Your task to perform on an android device: turn on the 12-hour format for clock Image 0: 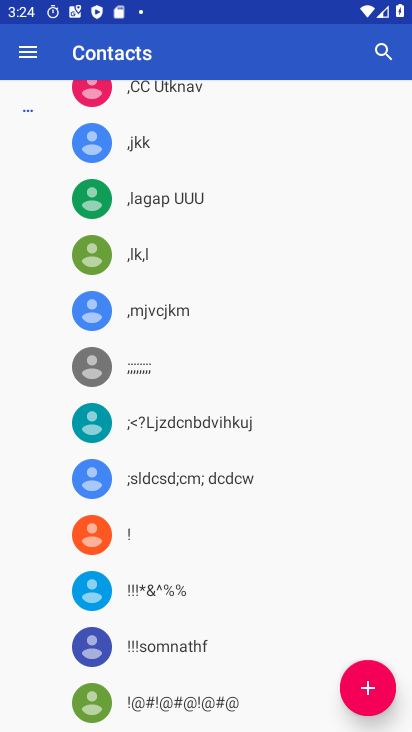
Step 0: press home button
Your task to perform on an android device: turn on the 12-hour format for clock Image 1: 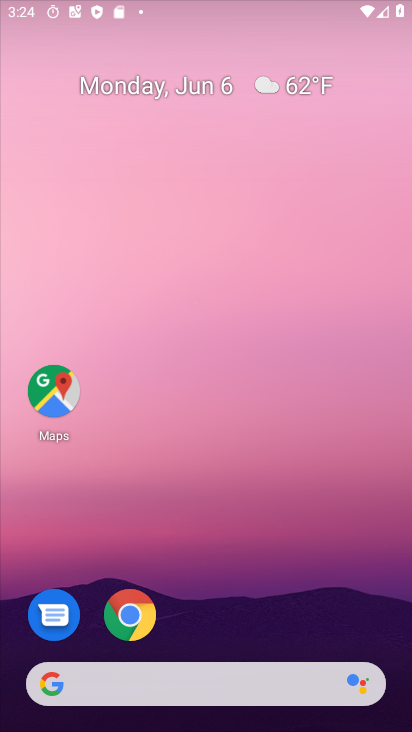
Step 1: drag from (263, 689) to (356, 103)
Your task to perform on an android device: turn on the 12-hour format for clock Image 2: 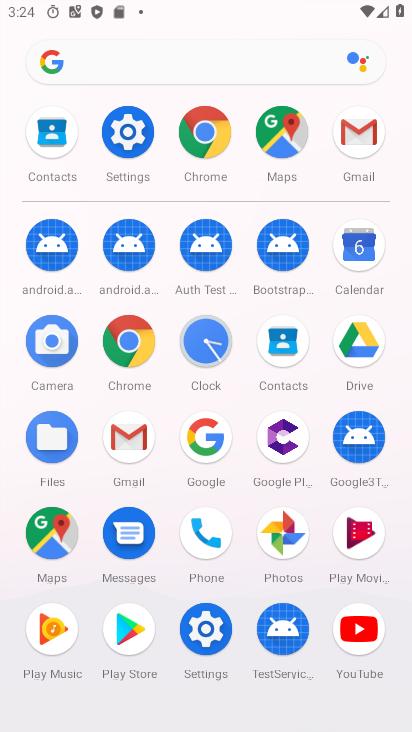
Step 2: click (192, 344)
Your task to perform on an android device: turn on the 12-hour format for clock Image 3: 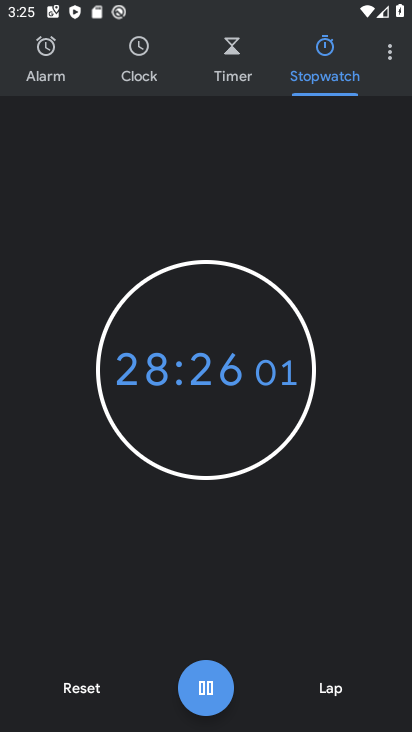
Step 3: click (401, 49)
Your task to perform on an android device: turn on the 12-hour format for clock Image 4: 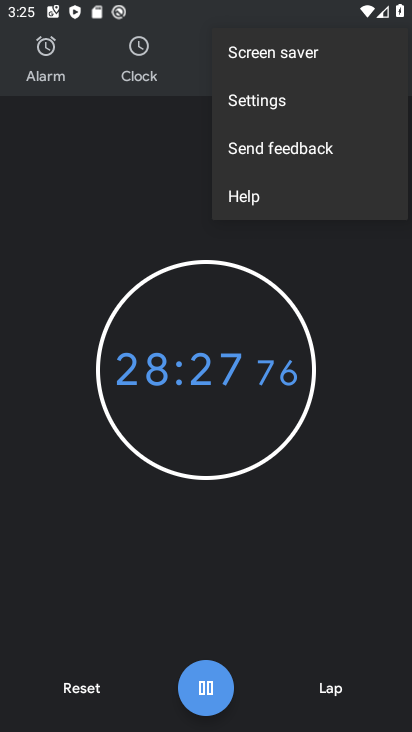
Step 4: click (304, 104)
Your task to perform on an android device: turn on the 12-hour format for clock Image 5: 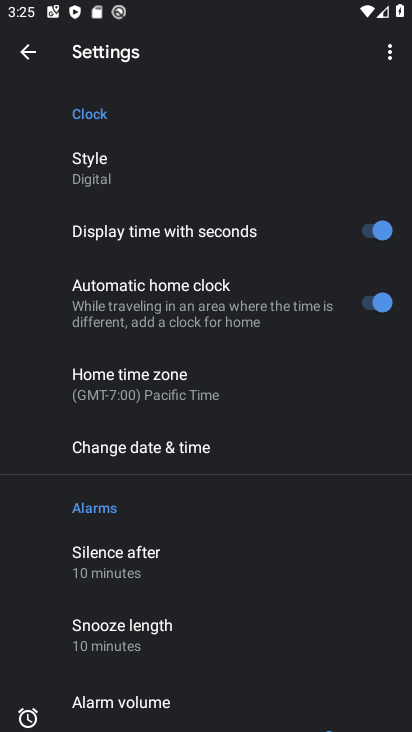
Step 5: click (144, 443)
Your task to perform on an android device: turn on the 12-hour format for clock Image 6: 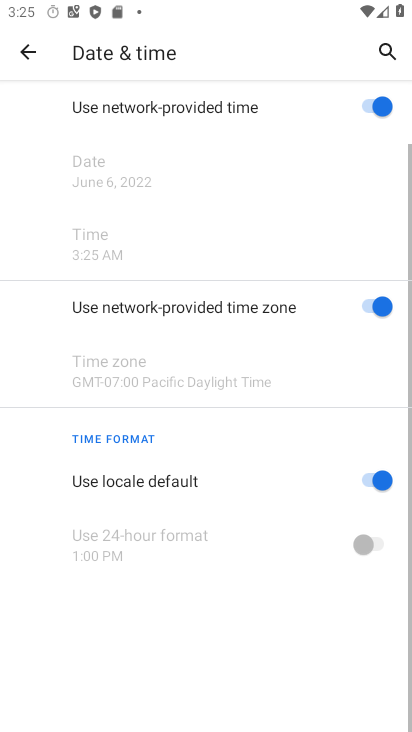
Step 6: drag from (232, 660) to (238, 390)
Your task to perform on an android device: turn on the 12-hour format for clock Image 7: 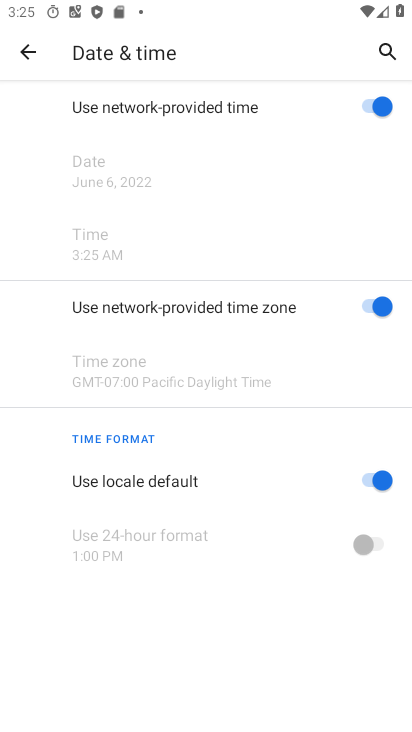
Step 7: click (366, 483)
Your task to perform on an android device: turn on the 12-hour format for clock Image 8: 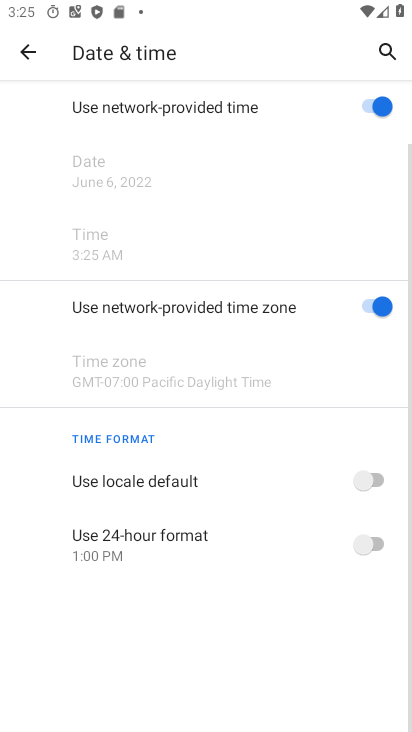
Step 8: task complete